Your task to perform on an android device: Go to Android settings Image 0: 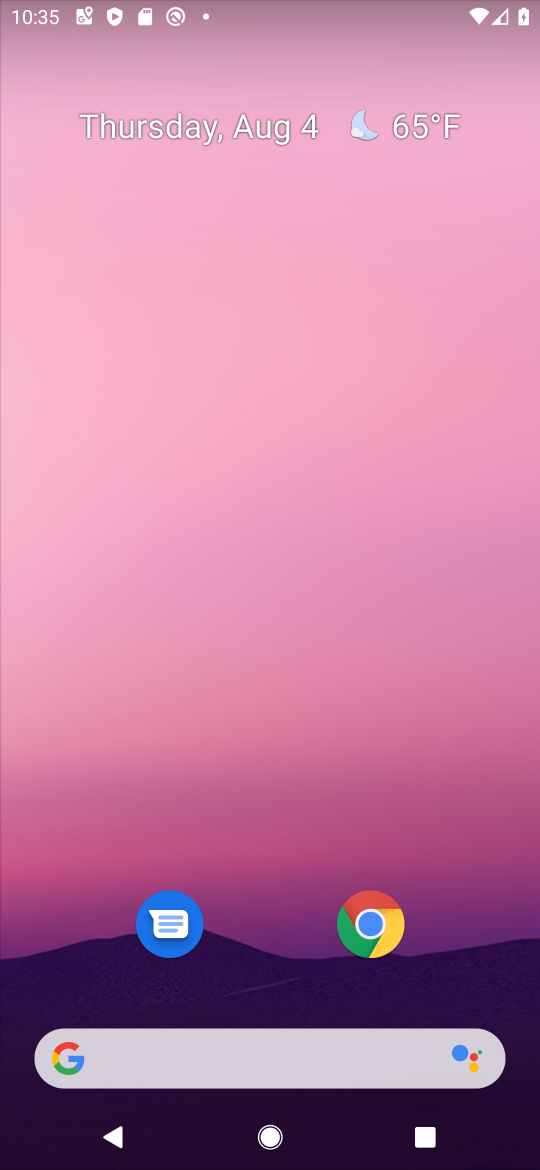
Step 0: drag from (284, 683) to (313, 167)
Your task to perform on an android device: Go to Android settings Image 1: 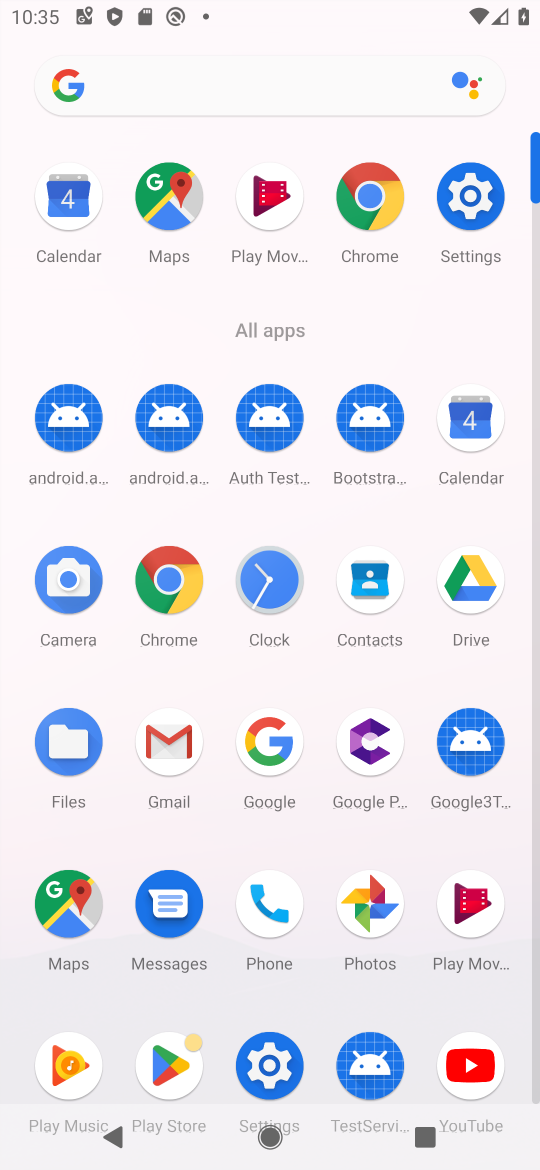
Step 1: click (468, 218)
Your task to perform on an android device: Go to Android settings Image 2: 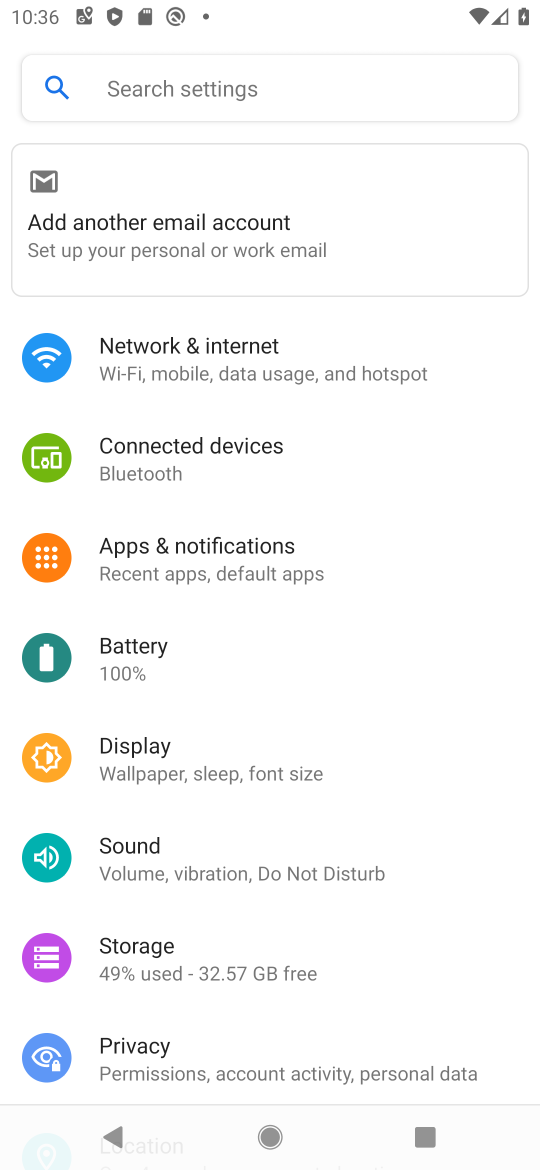
Step 2: task complete